Your task to perform on an android device: Empty the shopping cart on costco. Add "alienware aurora" to the cart on costco Image 0: 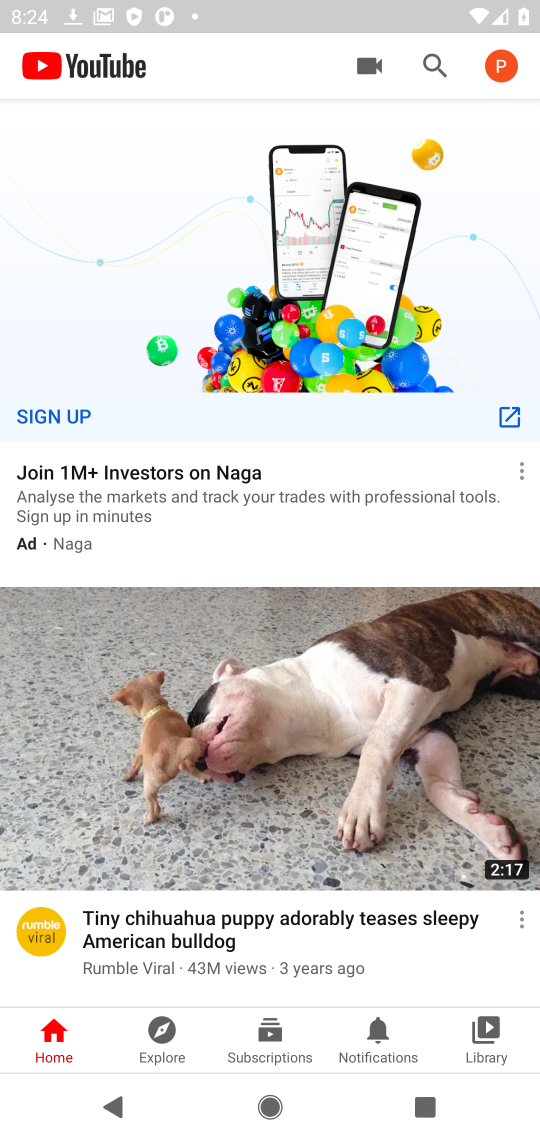
Step 0: press home button
Your task to perform on an android device: Empty the shopping cart on costco. Add "alienware aurora" to the cart on costco Image 1: 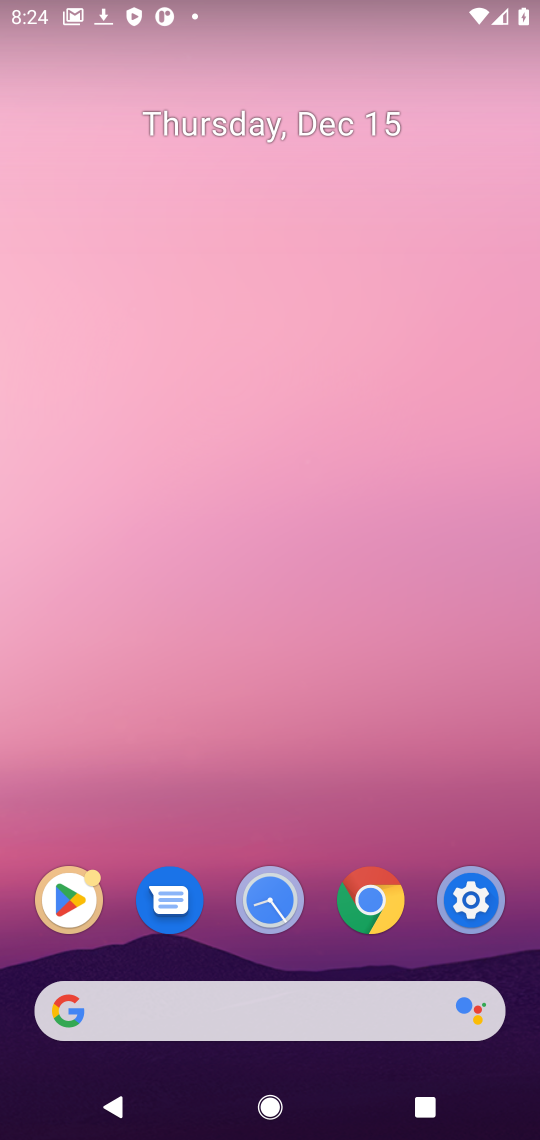
Step 1: click (378, 888)
Your task to perform on an android device: Empty the shopping cart on costco. Add "alienware aurora" to the cart on costco Image 2: 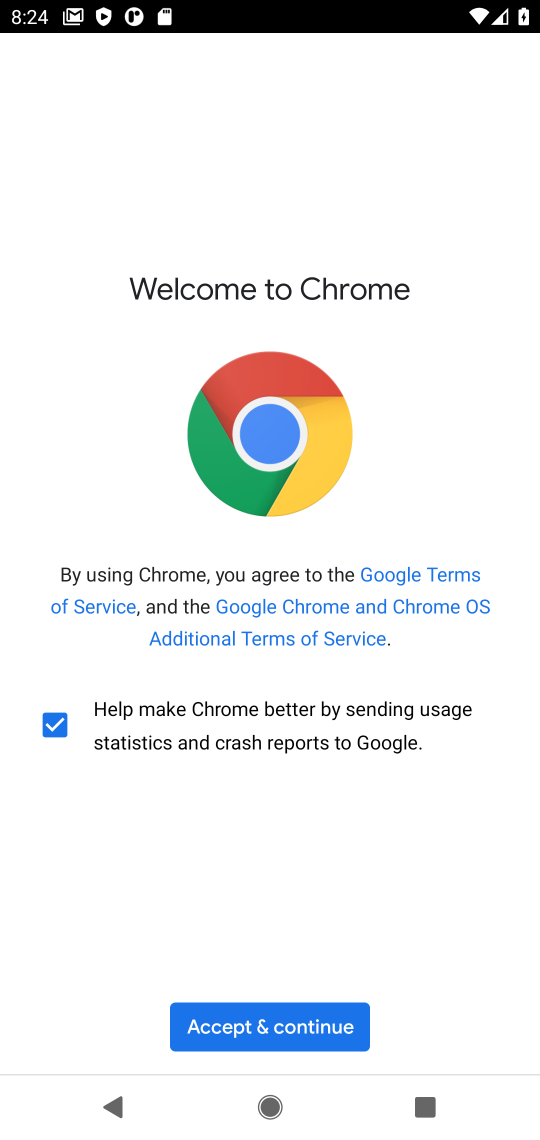
Step 2: click (255, 1027)
Your task to perform on an android device: Empty the shopping cart on costco. Add "alienware aurora" to the cart on costco Image 3: 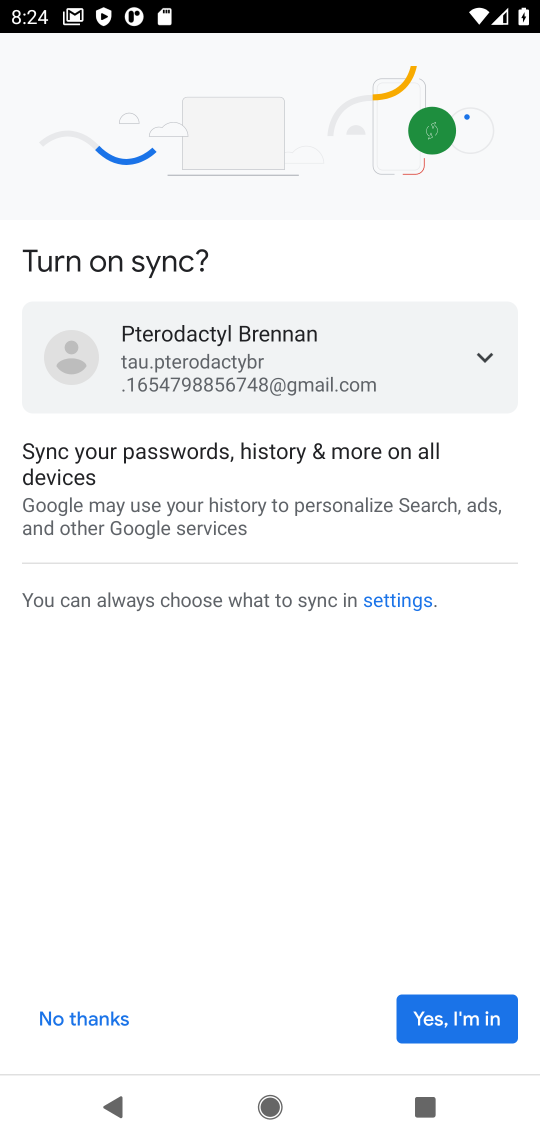
Step 3: click (480, 1013)
Your task to perform on an android device: Empty the shopping cart on costco. Add "alienware aurora" to the cart on costco Image 4: 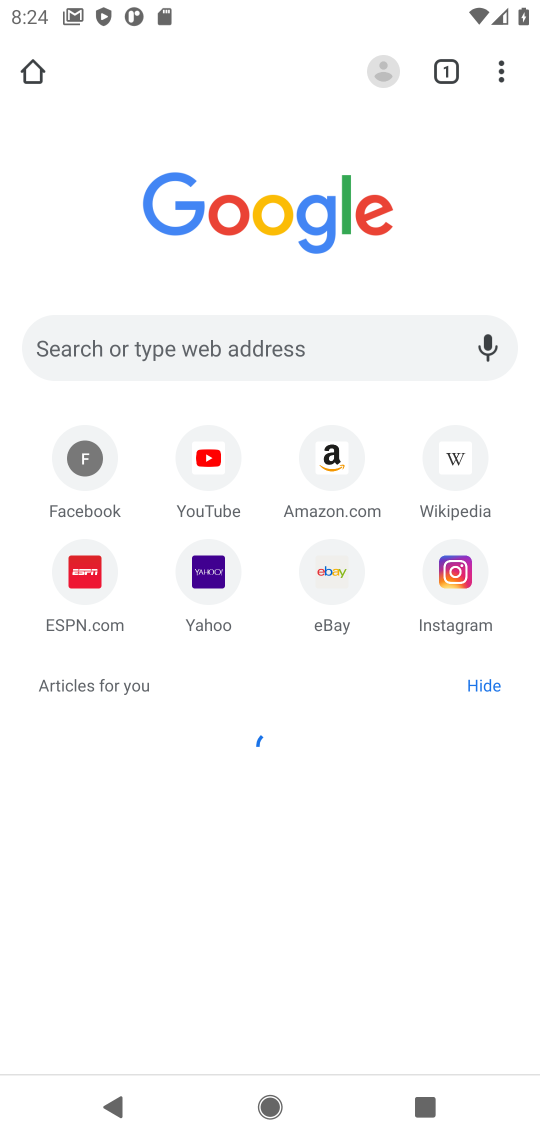
Step 4: click (117, 343)
Your task to perform on an android device: Empty the shopping cart on costco. Add "alienware aurora" to the cart on costco Image 5: 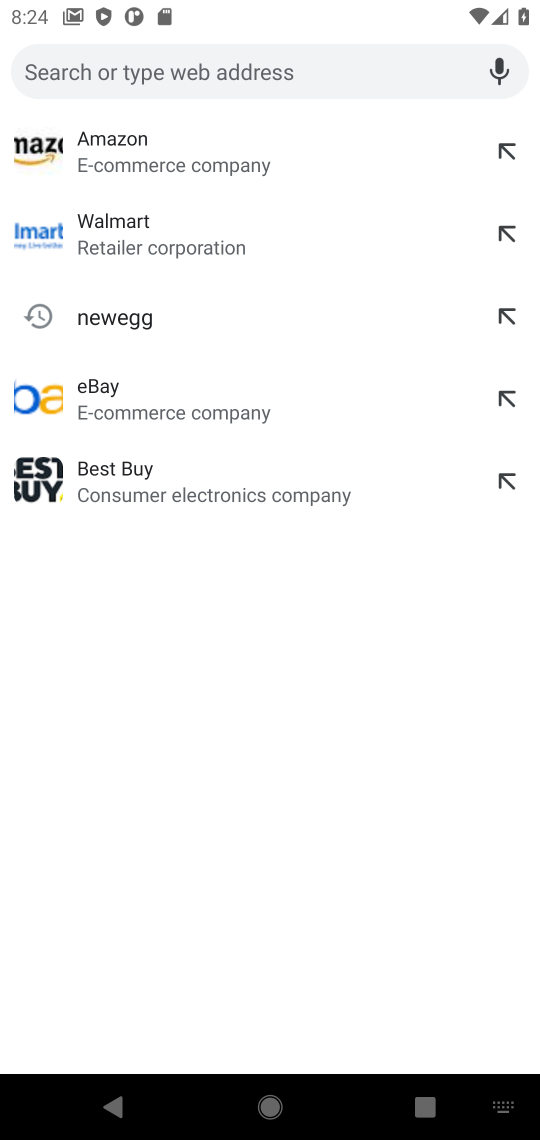
Step 5: type "costco"
Your task to perform on an android device: Empty the shopping cart on costco. Add "alienware aurora" to the cart on costco Image 6: 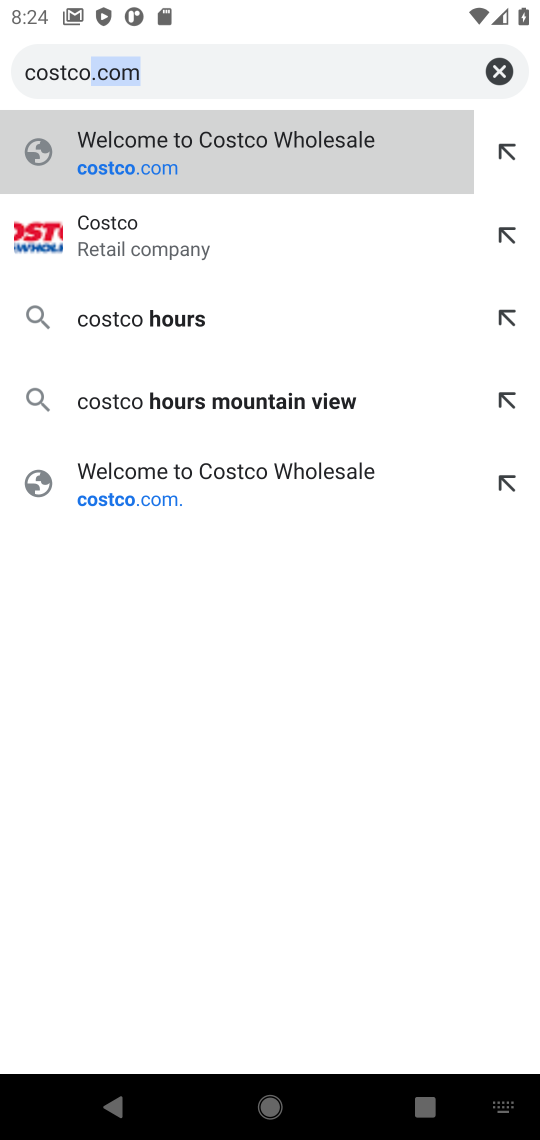
Step 6: click (347, 69)
Your task to perform on an android device: Empty the shopping cart on costco. Add "alienware aurora" to the cart on costco Image 7: 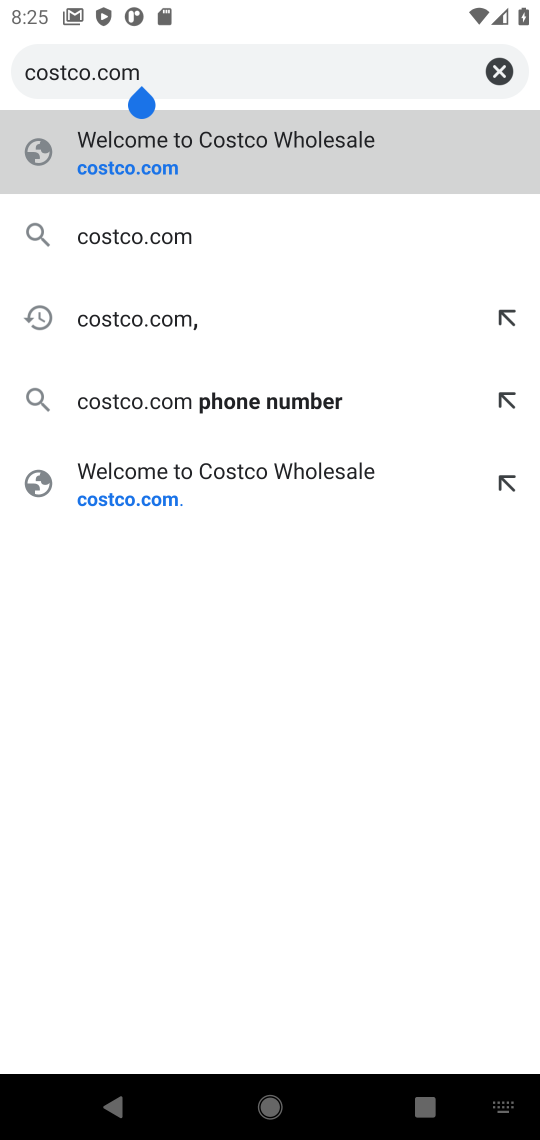
Step 7: click (167, 233)
Your task to perform on an android device: Empty the shopping cart on costco. Add "alienware aurora" to the cart on costco Image 8: 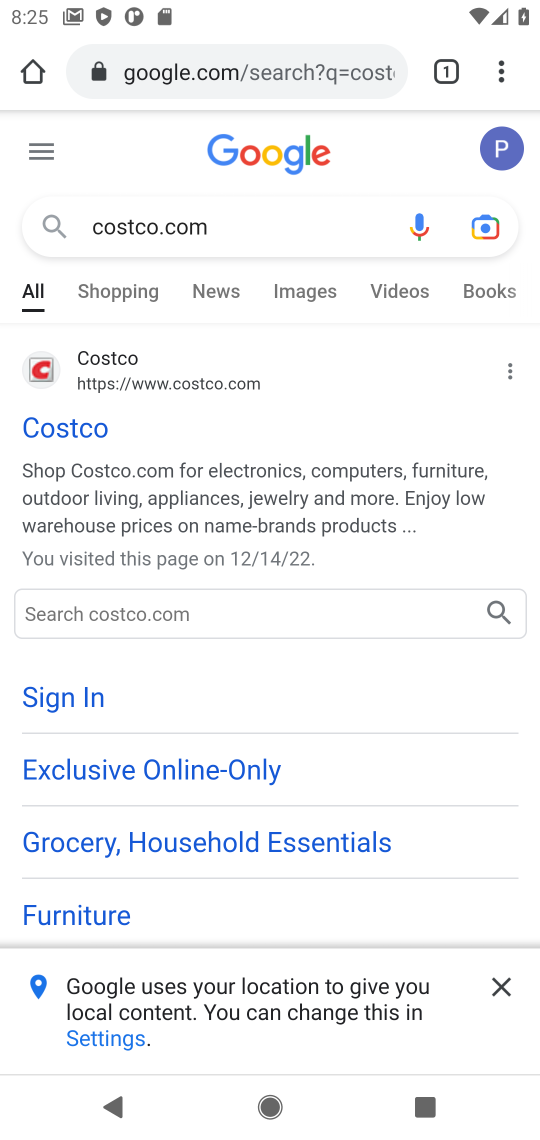
Step 8: click (218, 385)
Your task to perform on an android device: Empty the shopping cart on costco. Add "alienware aurora" to the cart on costco Image 9: 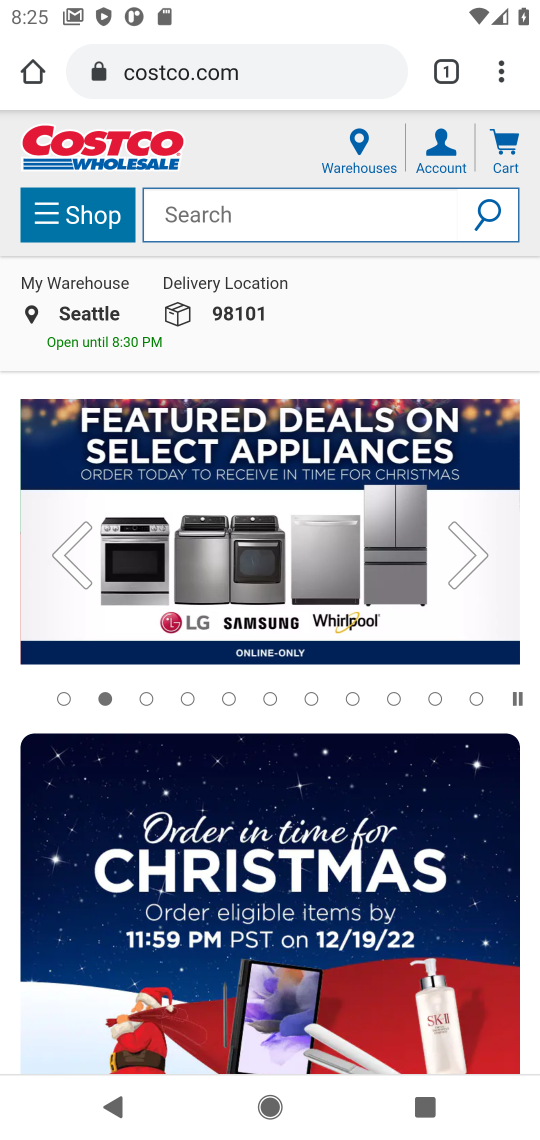
Step 9: click (503, 142)
Your task to perform on an android device: Empty the shopping cart on costco. Add "alienware aurora" to the cart on costco Image 10: 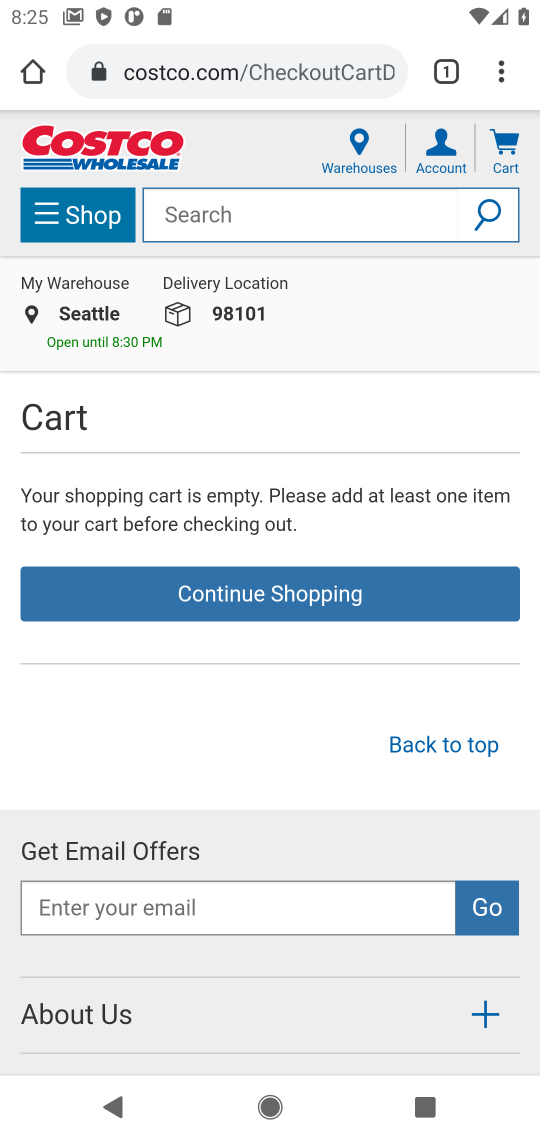
Step 10: click (443, 209)
Your task to perform on an android device: Empty the shopping cart on costco. Add "alienware aurora" to the cart on costco Image 11: 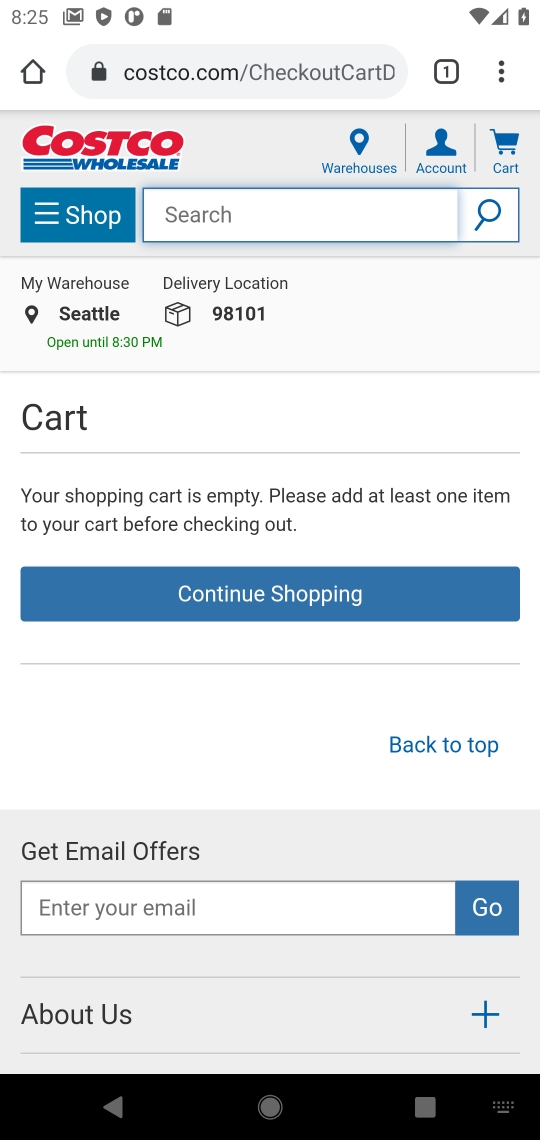
Step 11: type "alienware aurora"
Your task to perform on an android device: Empty the shopping cart on costco. Add "alienware aurora" to the cart on costco Image 12: 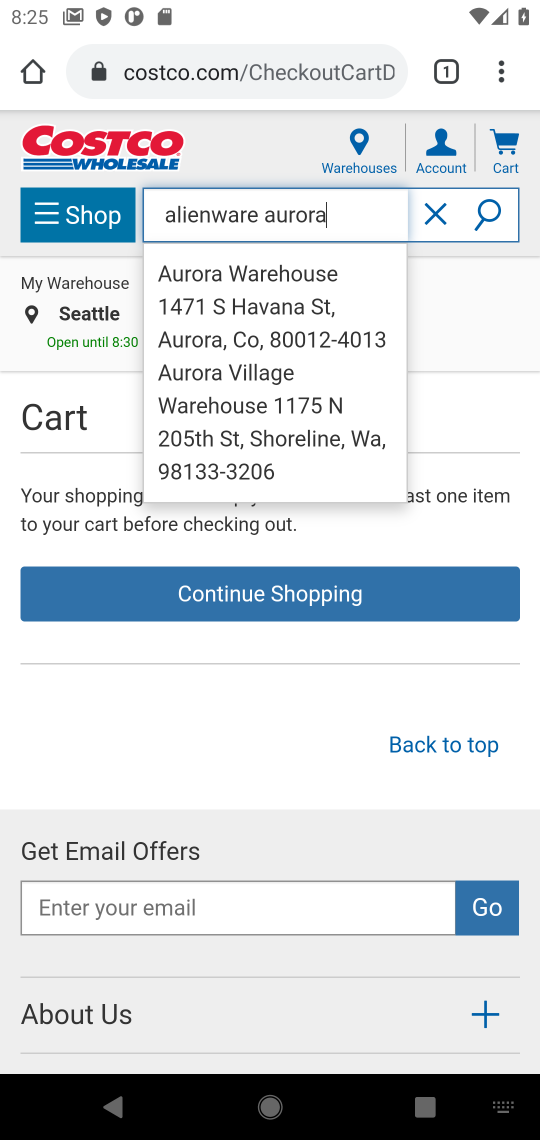
Step 12: click (486, 205)
Your task to perform on an android device: Empty the shopping cart on costco. Add "alienware aurora" to the cart on costco Image 13: 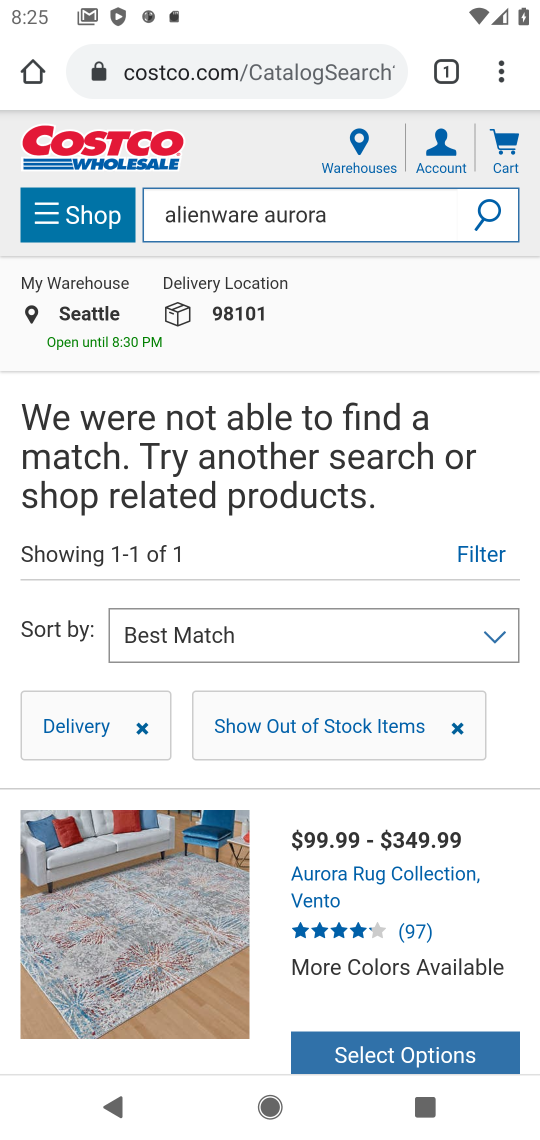
Step 13: task complete